Your task to perform on an android device: Check the weather Image 0: 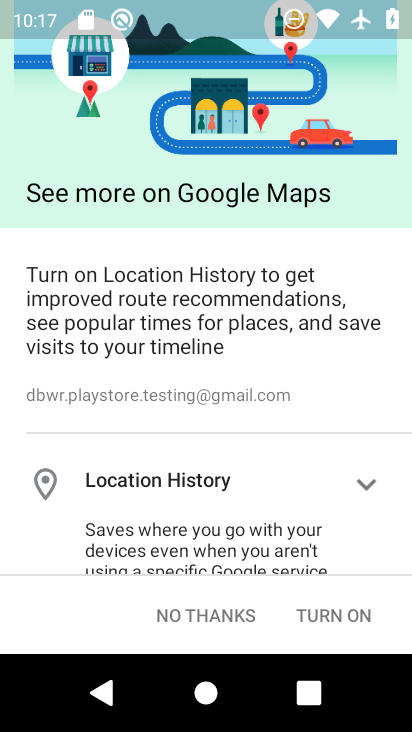
Step 0: press home button
Your task to perform on an android device: Check the weather Image 1: 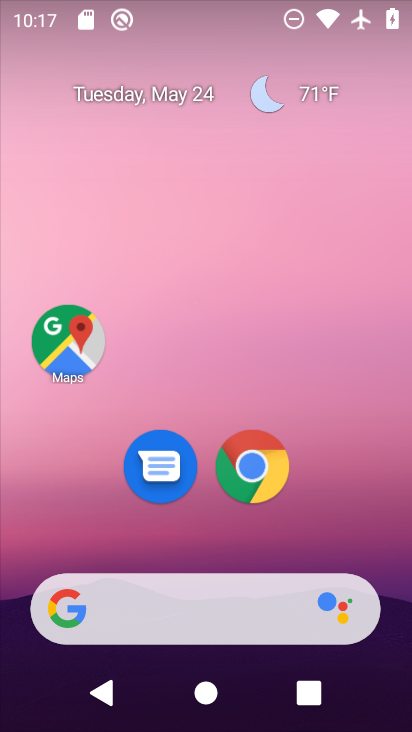
Step 1: click (275, 98)
Your task to perform on an android device: Check the weather Image 2: 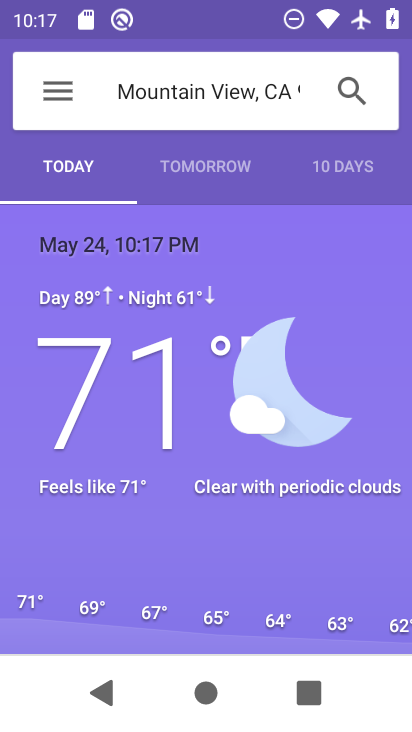
Step 2: task complete